Your task to perform on an android device: find snoozed emails in the gmail app Image 0: 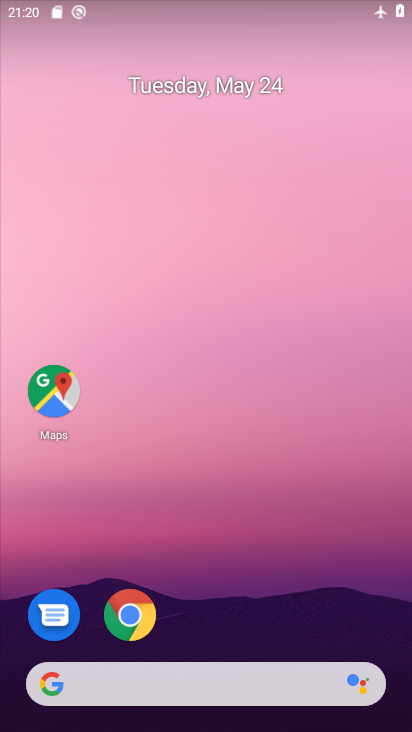
Step 0: drag from (217, 605) to (205, 207)
Your task to perform on an android device: find snoozed emails in the gmail app Image 1: 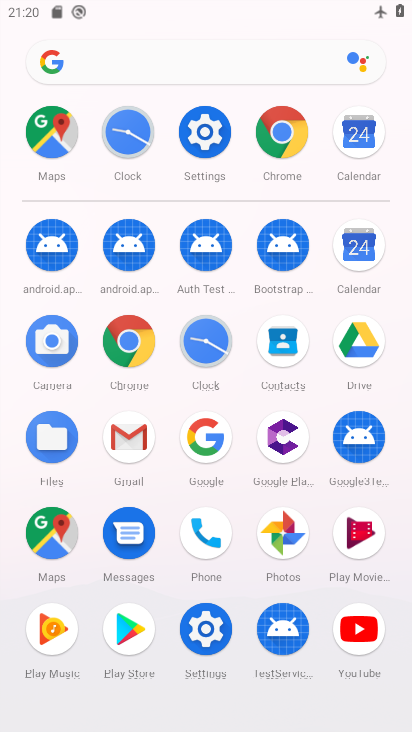
Step 1: click (135, 431)
Your task to perform on an android device: find snoozed emails in the gmail app Image 2: 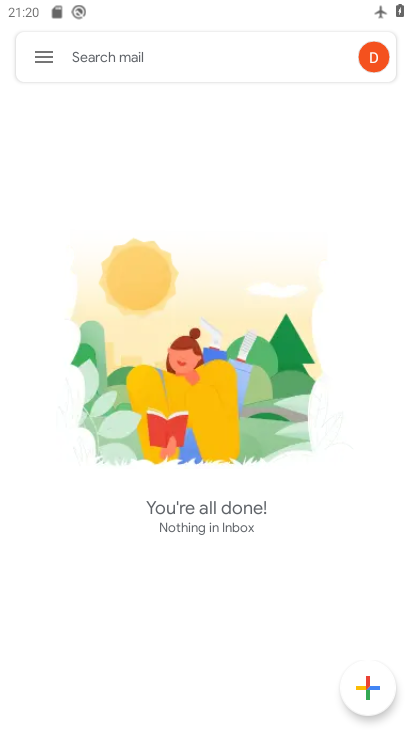
Step 2: click (40, 55)
Your task to perform on an android device: find snoozed emails in the gmail app Image 3: 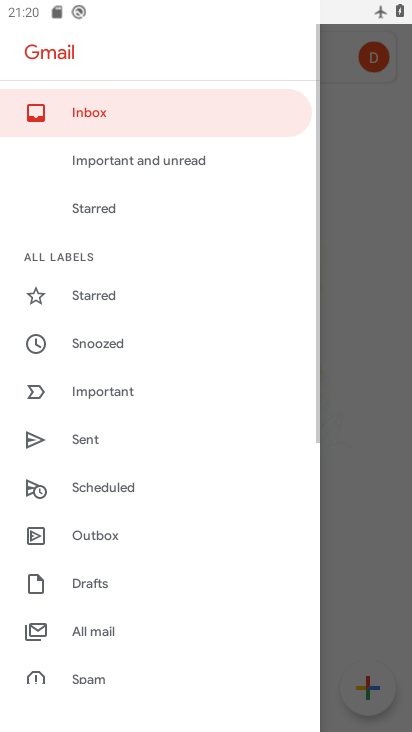
Step 3: click (124, 342)
Your task to perform on an android device: find snoozed emails in the gmail app Image 4: 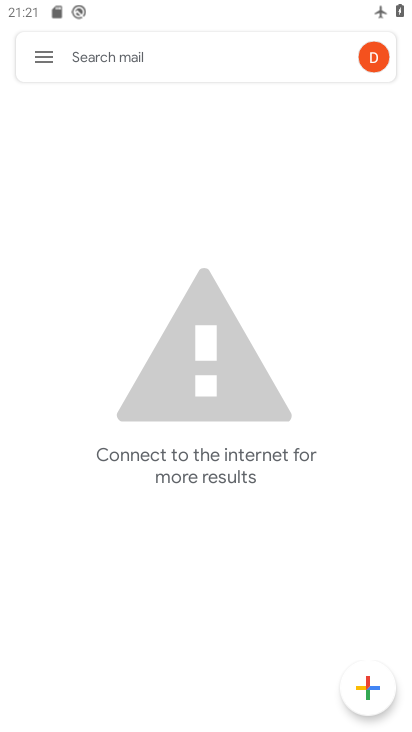
Step 4: click (39, 53)
Your task to perform on an android device: find snoozed emails in the gmail app Image 5: 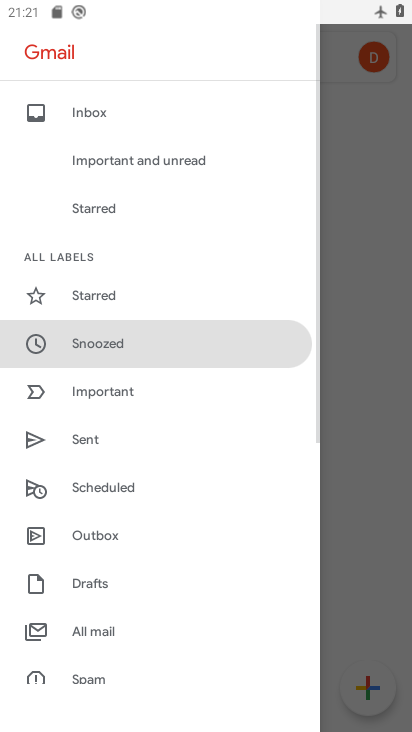
Step 5: click (150, 345)
Your task to perform on an android device: find snoozed emails in the gmail app Image 6: 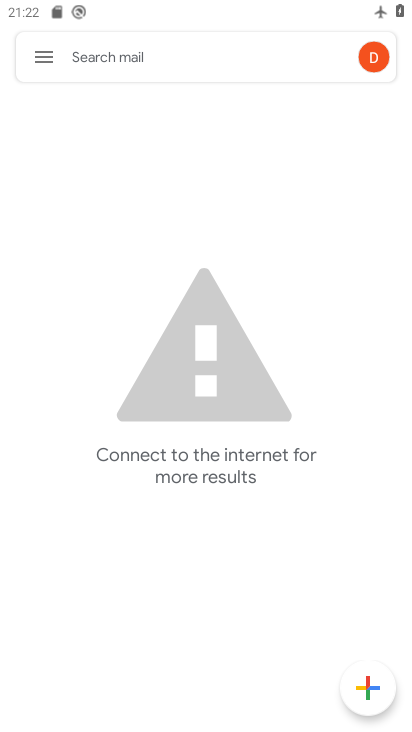
Step 6: click (37, 59)
Your task to perform on an android device: find snoozed emails in the gmail app Image 7: 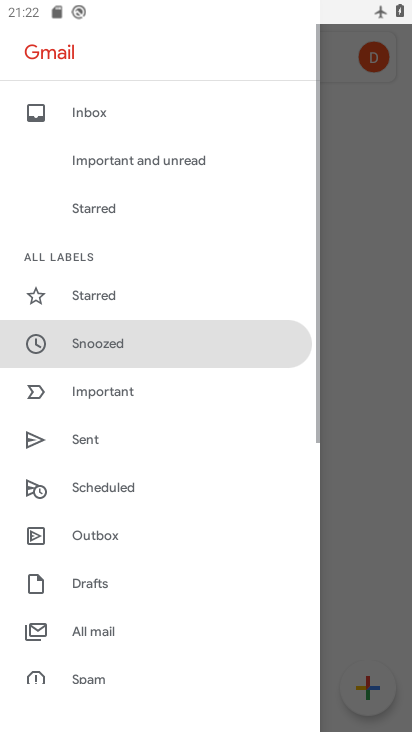
Step 7: click (141, 339)
Your task to perform on an android device: find snoozed emails in the gmail app Image 8: 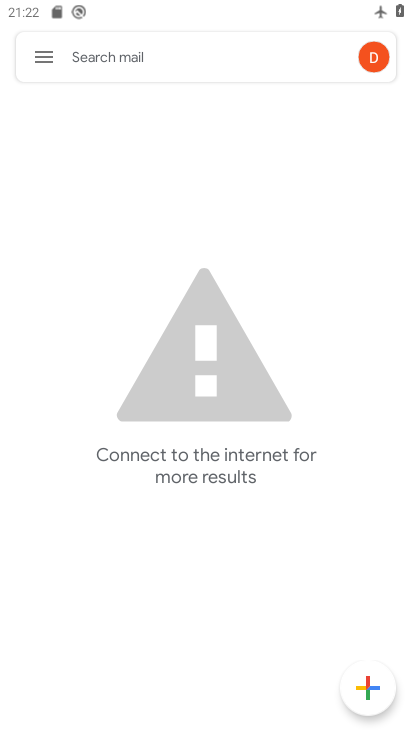
Step 8: task complete